Your task to perform on an android device: What's on my calendar tomorrow? Image 0: 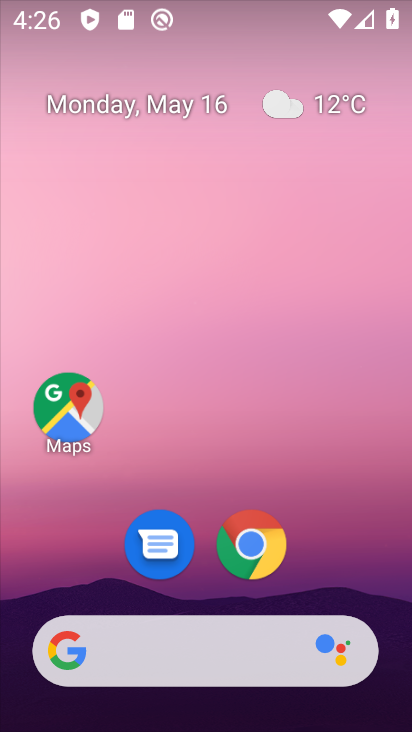
Step 0: drag from (366, 578) to (237, 168)
Your task to perform on an android device: What's on my calendar tomorrow? Image 1: 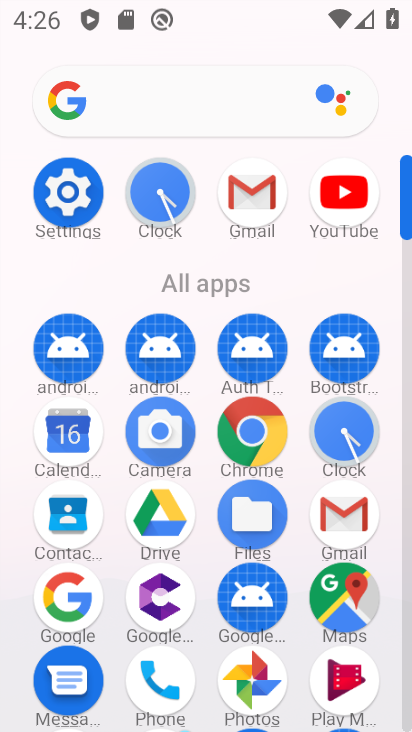
Step 1: click (70, 430)
Your task to perform on an android device: What's on my calendar tomorrow? Image 2: 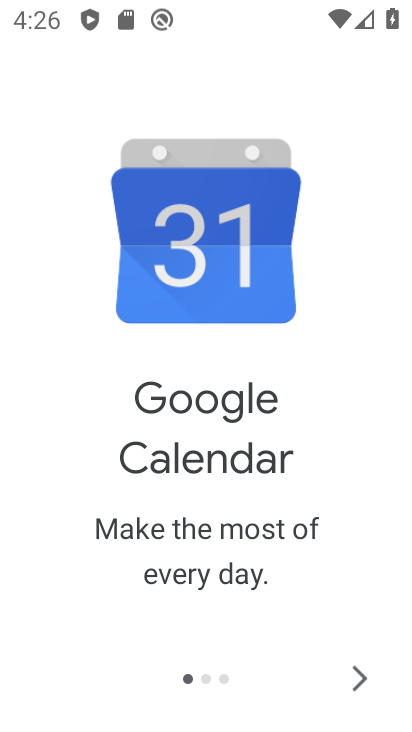
Step 2: click (362, 671)
Your task to perform on an android device: What's on my calendar tomorrow? Image 3: 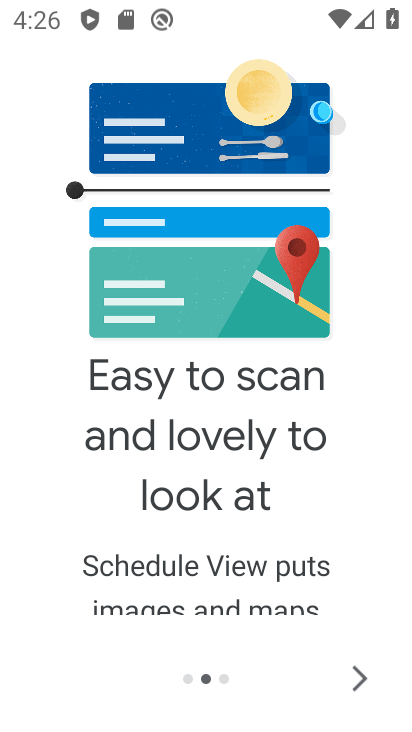
Step 3: click (362, 671)
Your task to perform on an android device: What's on my calendar tomorrow? Image 4: 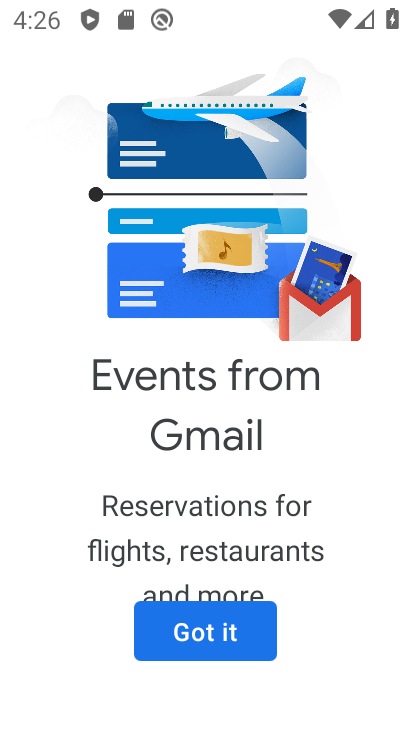
Step 4: click (221, 634)
Your task to perform on an android device: What's on my calendar tomorrow? Image 5: 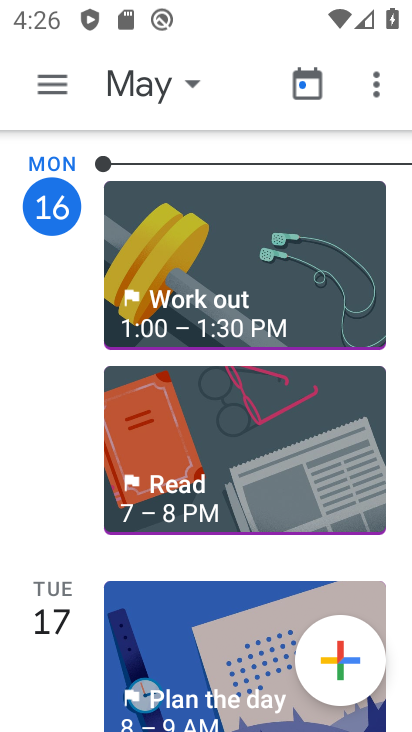
Step 5: click (192, 83)
Your task to perform on an android device: What's on my calendar tomorrow? Image 6: 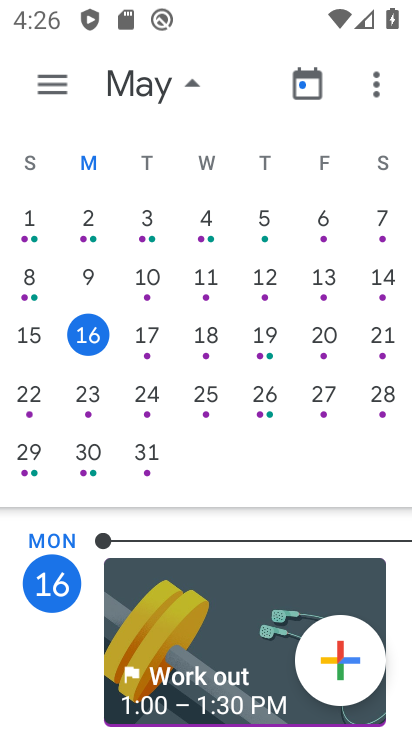
Step 6: click (145, 334)
Your task to perform on an android device: What's on my calendar tomorrow? Image 7: 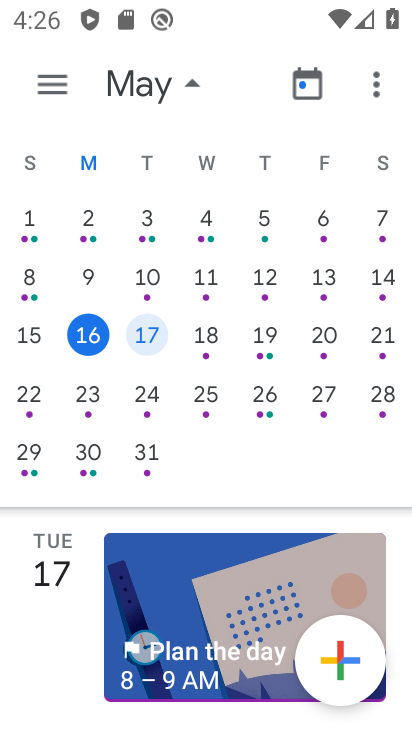
Step 7: click (51, 85)
Your task to perform on an android device: What's on my calendar tomorrow? Image 8: 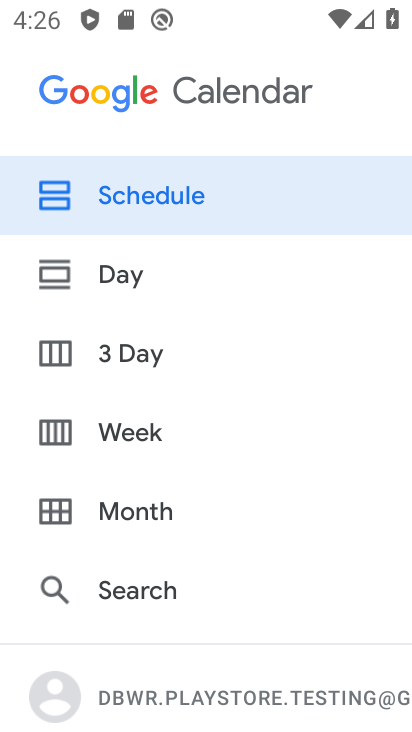
Step 8: click (126, 202)
Your task to perform on an android device: What's on my calendar tomorrow? Image 9: 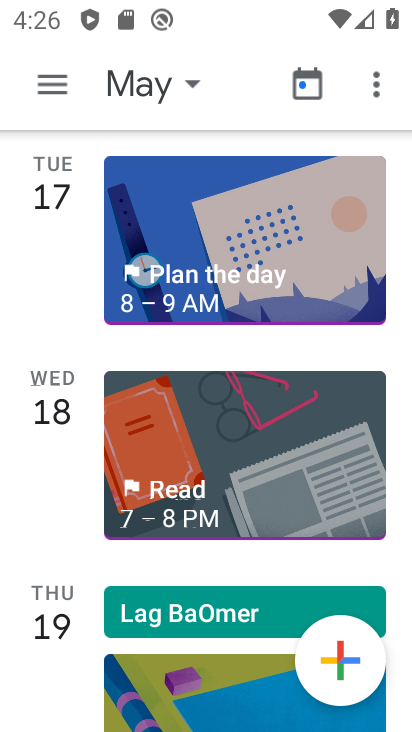
Step 9: click (208, 223)
Your task to perform on an android device: What's on my calendar tomorrow? Image 10: 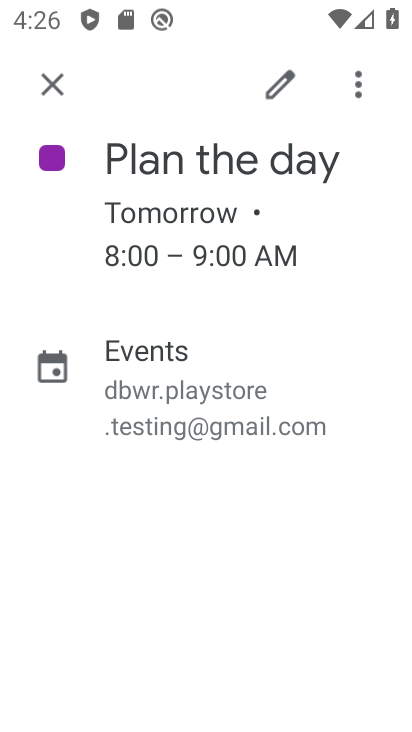
Step 10: task complete